Your task to perform on an android device: What's the weather today? Image 0: 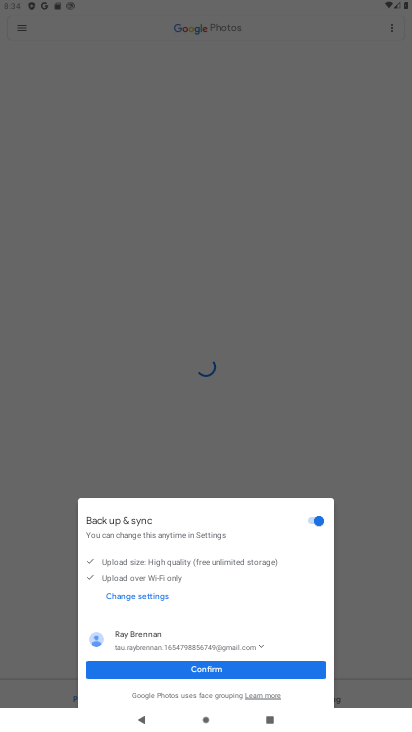
Step 0: press home button
Your task to perform on an android device: What's the weather today? Image 1: 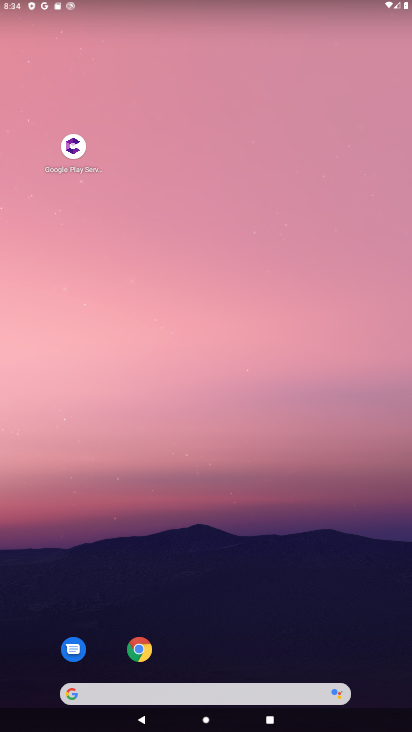
Step 1: drag from (251, 646) to (250, 28)
Your task to perform on an android device: What's the weather today? Image 2: 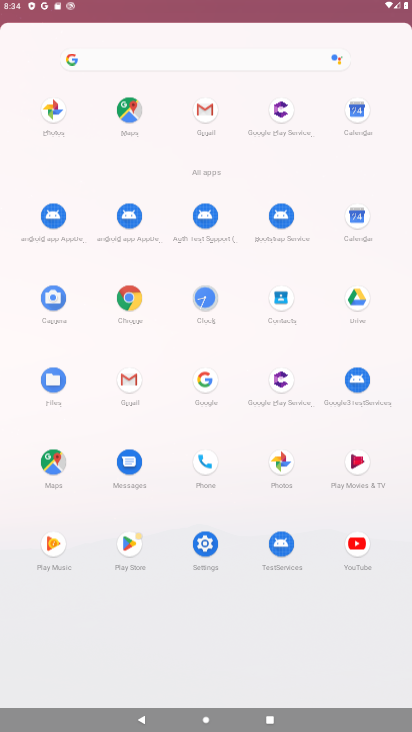
Step 2: click (124, 292)
Your task to perform on an android device: What's the weather today? Image 3: 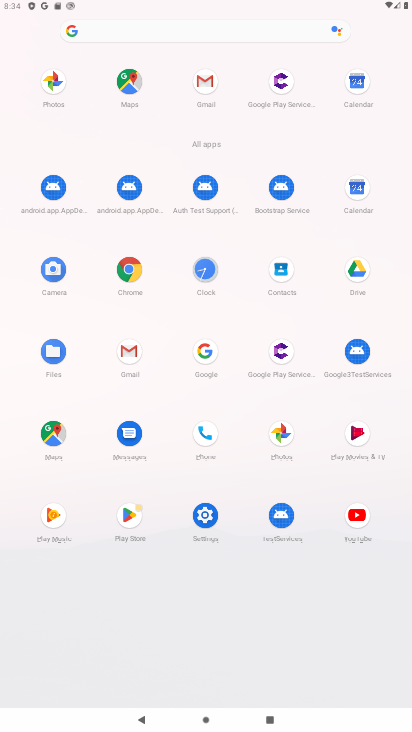
Step 3: click (136, 278)
Your task to perform on an android device: What's the weather today? Image 4: 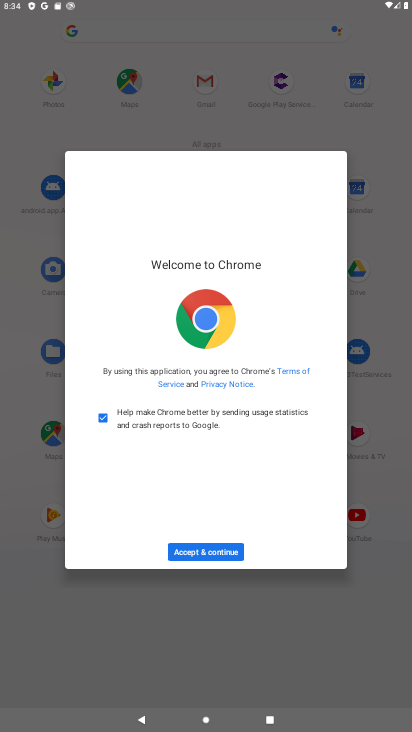
Step 4: click (214, 542)
Your task to perform on an android device: What's the weather today? Image 5: 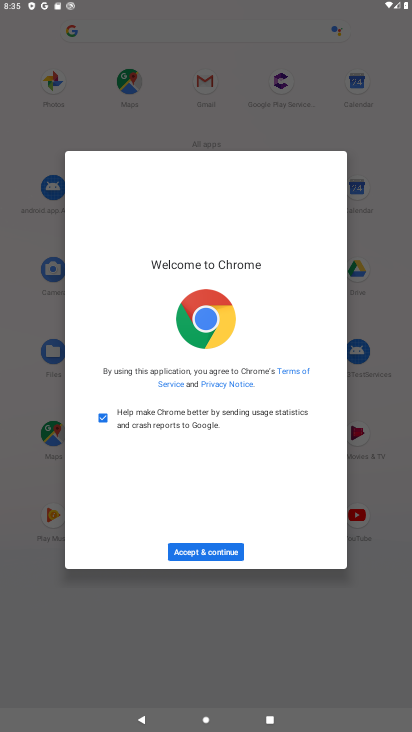
Step 5: click (227, 556)
Your task to perform on an android device: What's the weather today? Image 6: 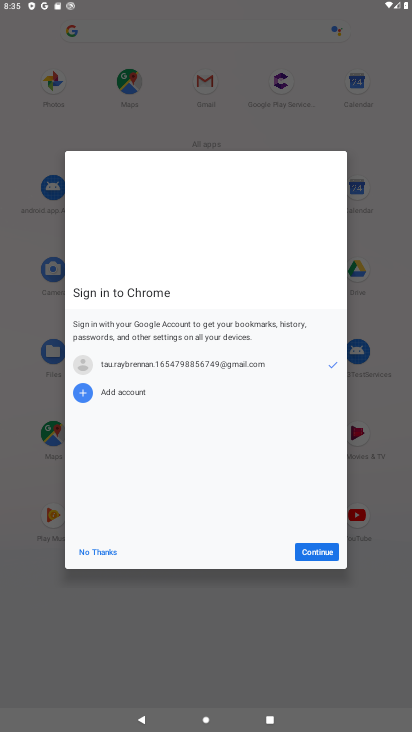
Step 6: click (310, 560)
Your task to perform on an android device: What's the weather today? Image 7: 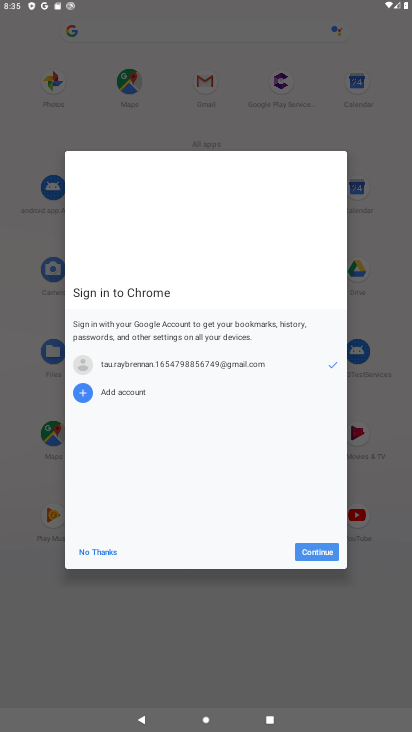
Step 7: click (310, 560)
Your task to perform on an android device: What's the weather today? Image 8: 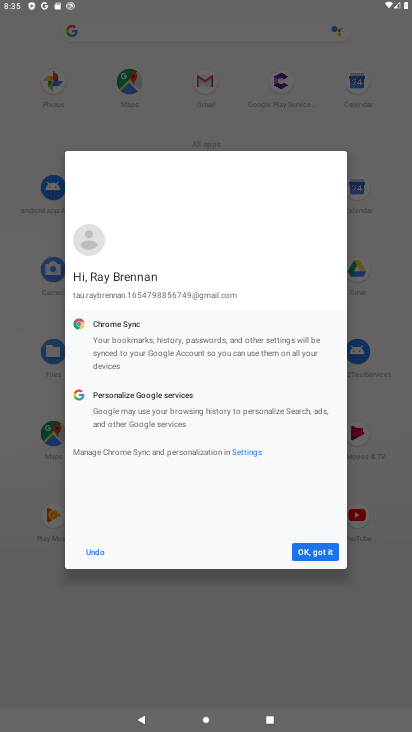
Step 8: click (310, 560)
Your task to perform on an android device: What's the weather today? Image 9: 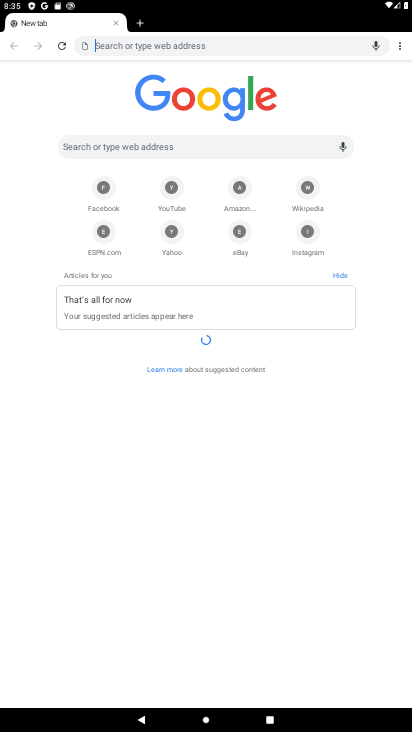
Step 9: click (233, 37)
Your task to perform on an android device: What's the weather today? Image 10: 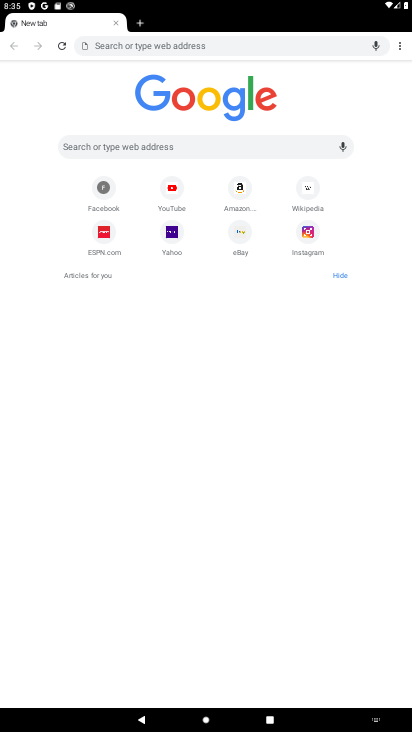
Step 10: type "What's the weather today?"
Your task to perform on an android device: What's the weather today? Image 11: 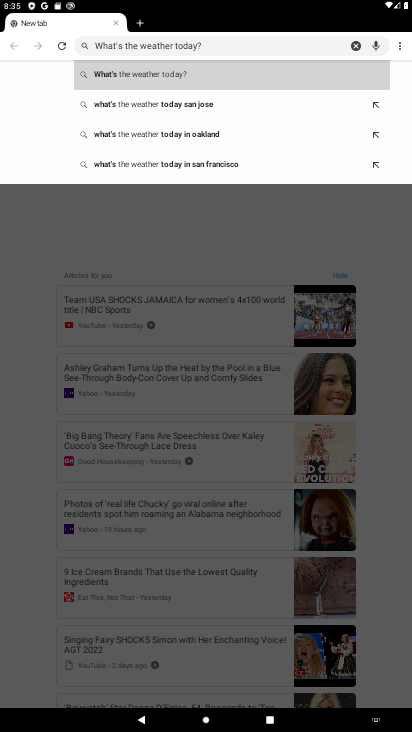
Step 11: click (351, 82)
Your task to perform on an android device: What's the weather today? Image 12: 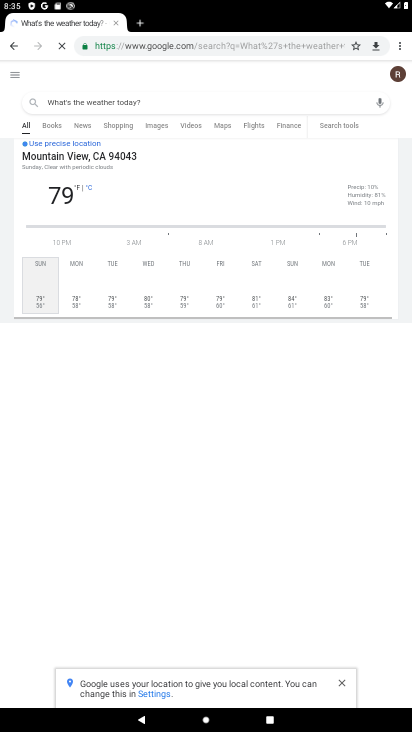
Step 12: task complete